Your task to perform on an android device: check data usage Image 0: 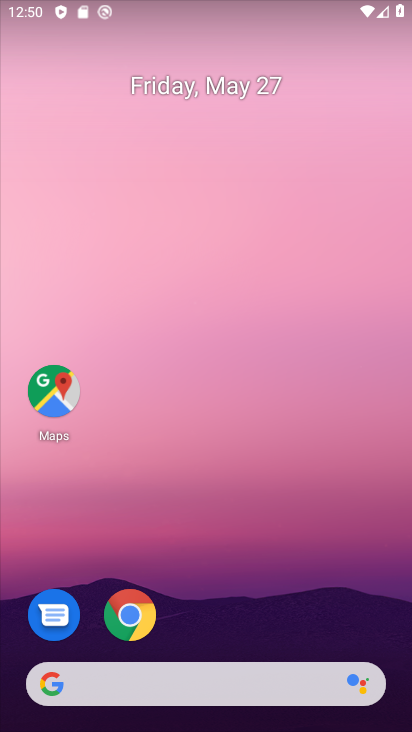
Step 0: drag from (185, 600) to (305, 200)
Your task to perform on an android device: check data usage Image 1: 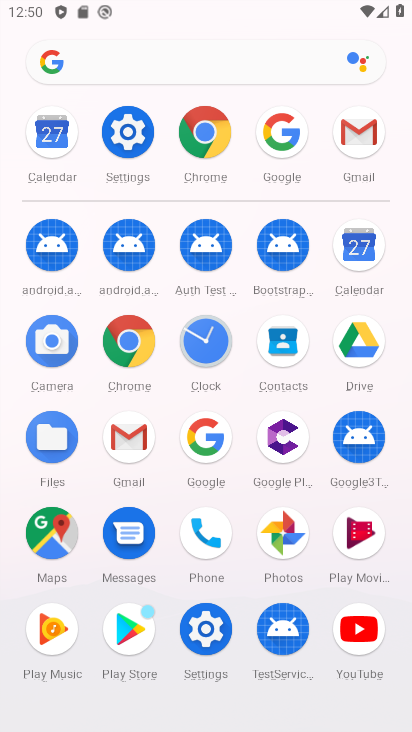
Step 1: click (230, 638)
Your task to perform on an android device: check data usage Image 2: 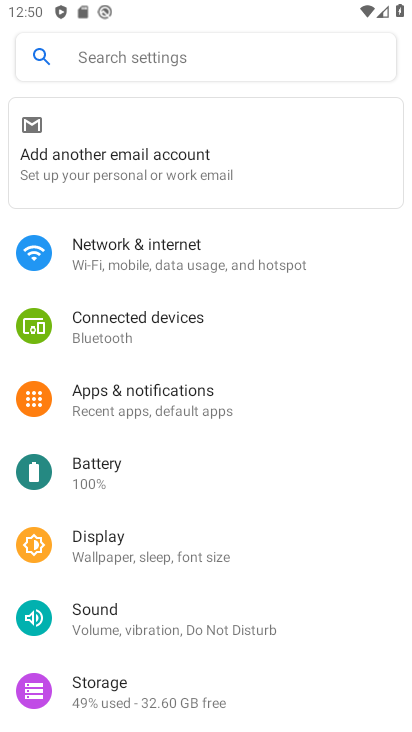
Step 2: click (218, 250)
Your task to perform on an android device: check data usage Image 3: 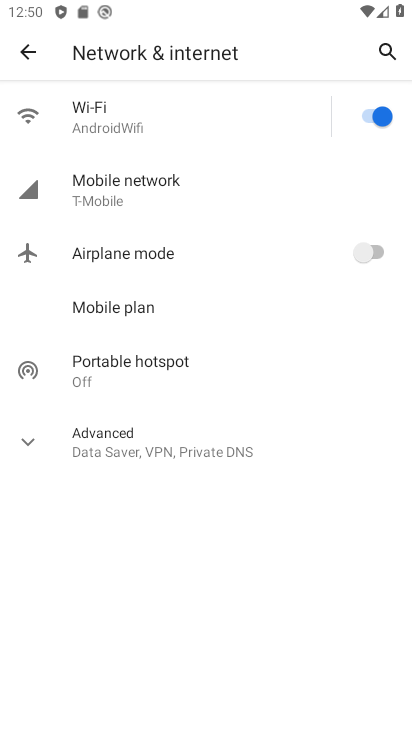
Step 3: click (188, 195)
Your task to perform on an android device: check data usage Image 4: 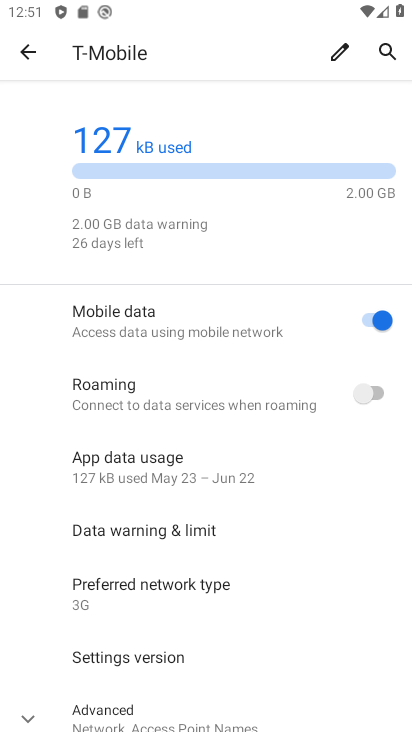
Step 4: drag from (188, 506) to (229, 273)
Your task to perform on an android device: check data usage Image 5: 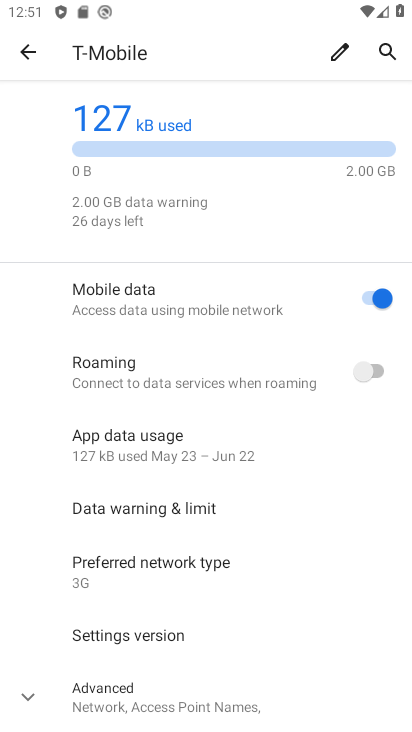
Step 5: click (170, 449)
Your task to perform on an android device: check data usage Image 6: 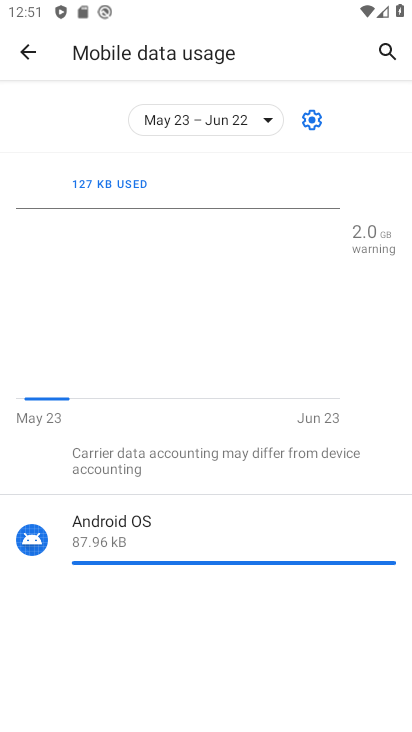
Step 6: task complete